Your task to perform on an android device: Go to eBay Image 0: 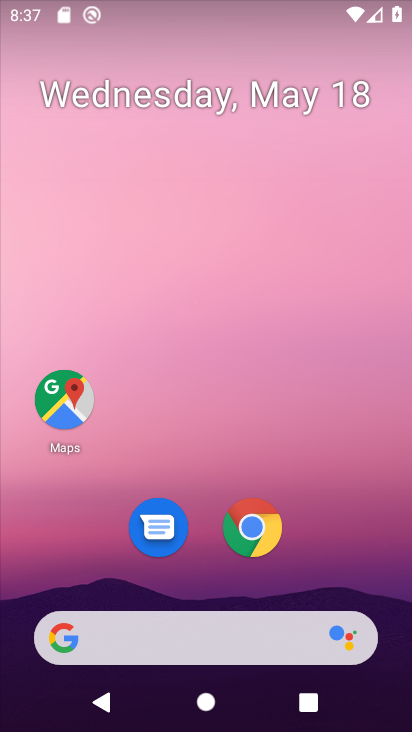
Step 0: click (72, 402)
Your task to perform on an android device: Go to eBay Image 1: 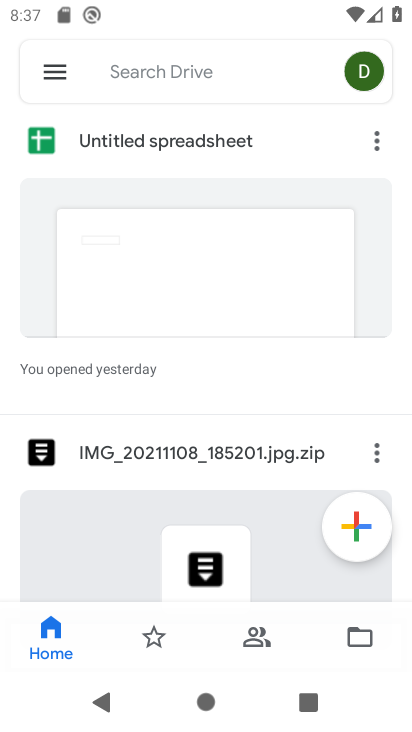
Step 1: press home button
Your task to perform on an android device: Go to eBay Image 2: 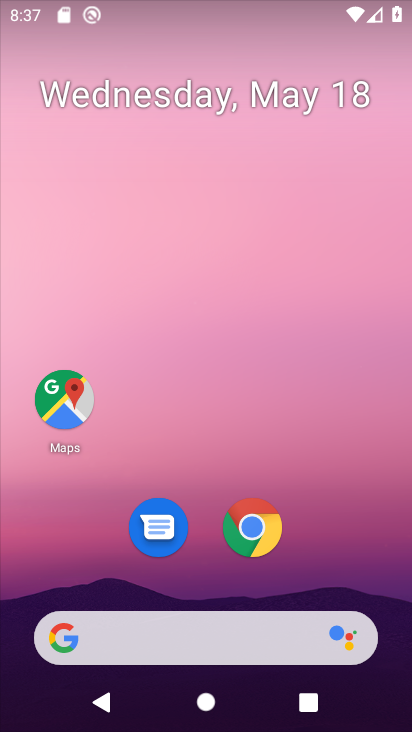
Step 2: click (263, 529)
Your task to perform on an android device: Go to eBay Image 3: 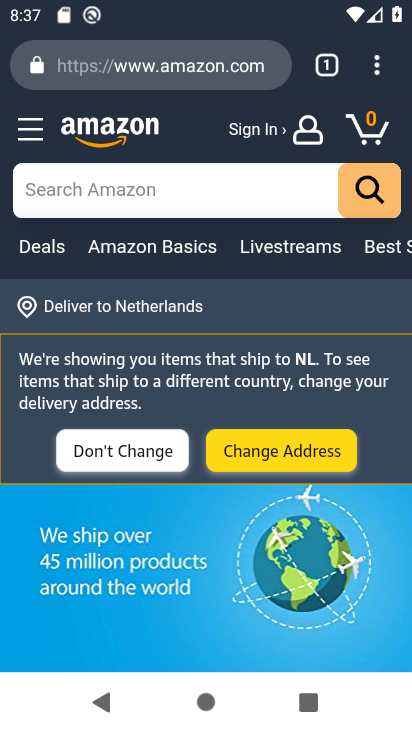
Step 3: press back button
Your task to perform on an android device: Go to eBay Image 4: 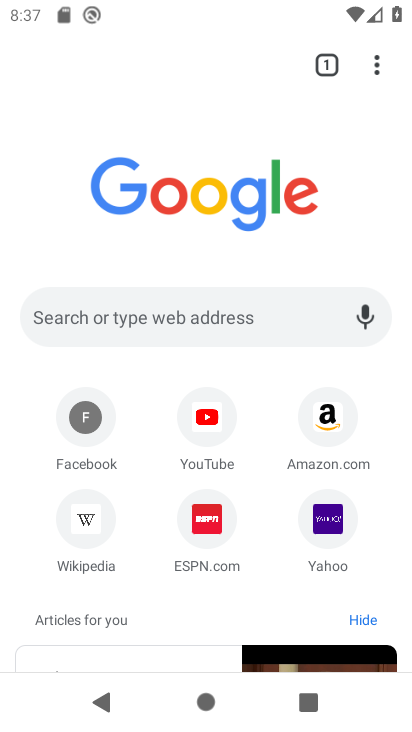
Step 4: click (136, 311)
Your task to perform on an android device: Go to eBay Image 5: 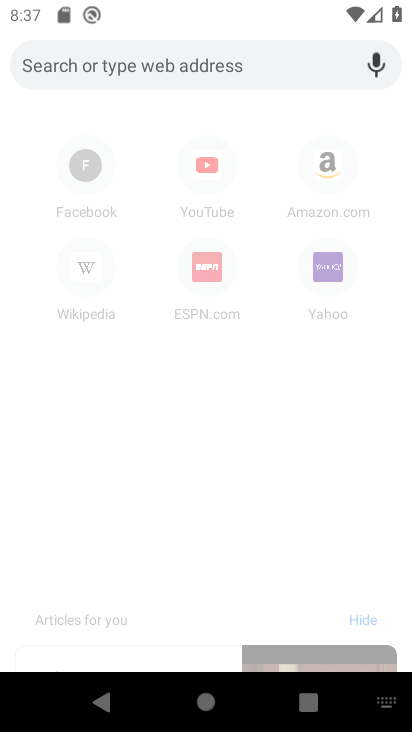
Step 5: type "www.ebay.com"
Your task to perform on an android device: Go to eBay Image 6: 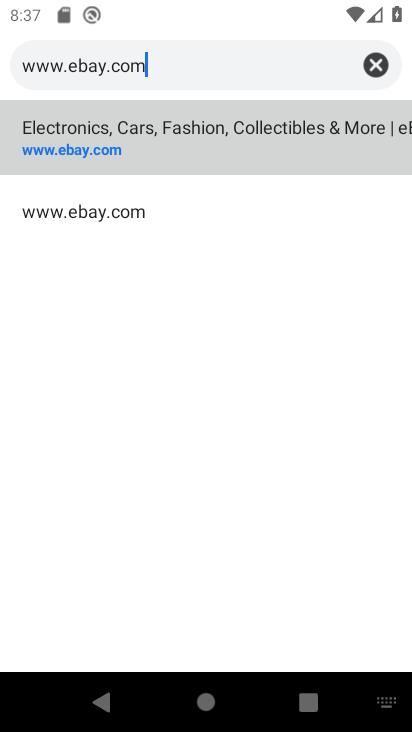
Step 6: click (70, 151)
Your task to perform on an android device: Go to eBay Image 7: 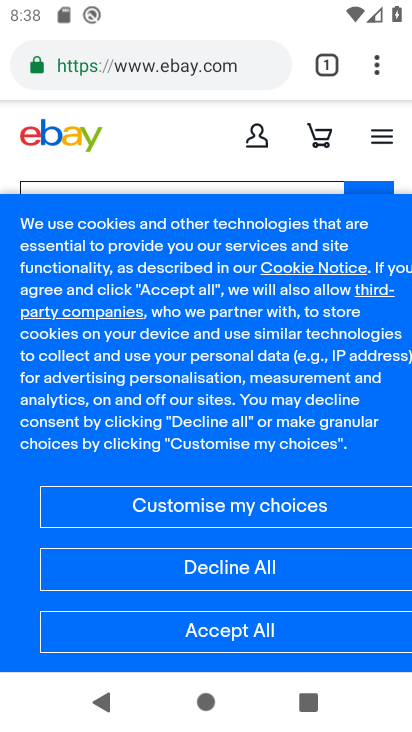
Step 7: task complete